Your task to perform on an android device: Show me the alarms in the clock app Image 0: 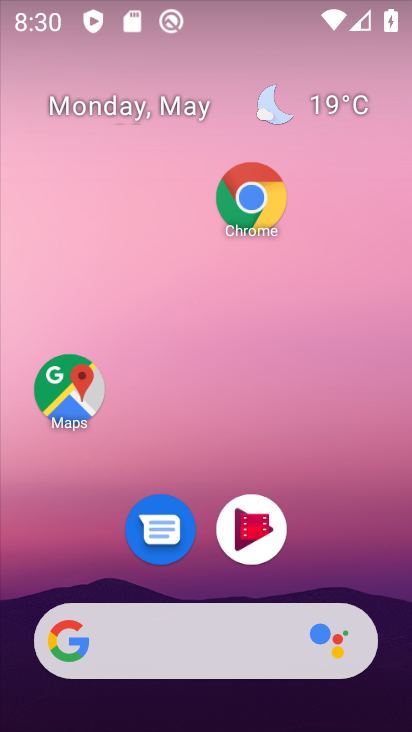
Step 0: drag from (274, 584) to (280, 13)
Your task to perform on an android device: Show me the alarms in the clock app Image 1: 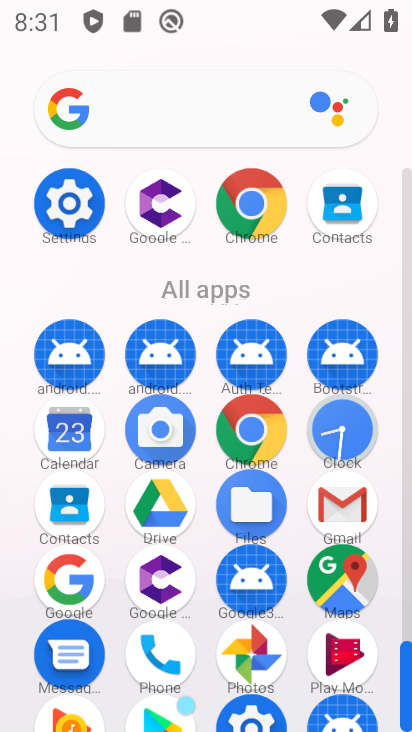
Step 1: drag from (168, 667) to (207, 333)
Your task to perform on an android device: Show me the alarms in the clock app Image 2: 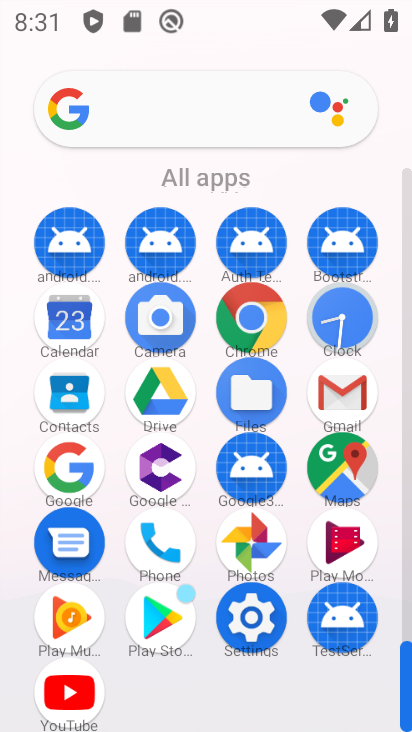
Step 2: click (355, 344)
Your task to perform on an android device: Show me the alarms in the clock app Image 3: 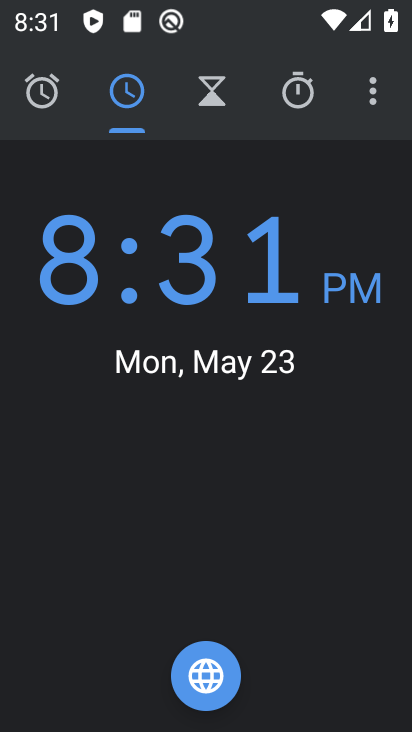
Step 3: click (43, 106)
Your task to perform on an android device: Show me the alarms in the clock app Image 4: 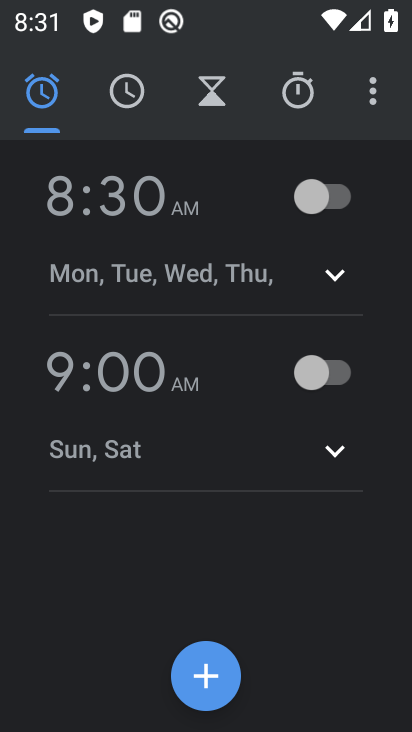
Step 4: task complete